Your task to perform on an android device: Open Google Maps and go to "Timeline" Image 0: 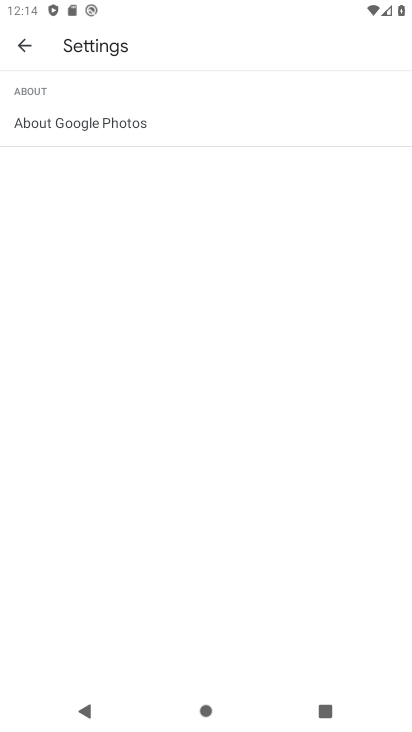
Step 0: press home button
Your task to perform on an android device: Open Google Maps and go to "Timeline" Image 1: 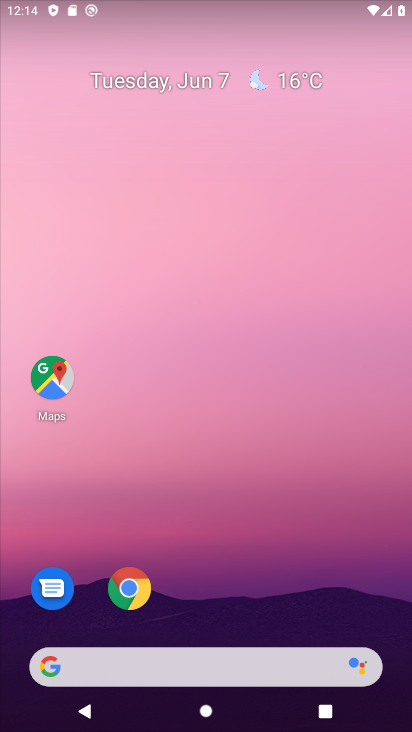
Step 1: click (28, 402)
Your task to perform on an android device: Open Google Maps and go to "Timeline" Image 2: 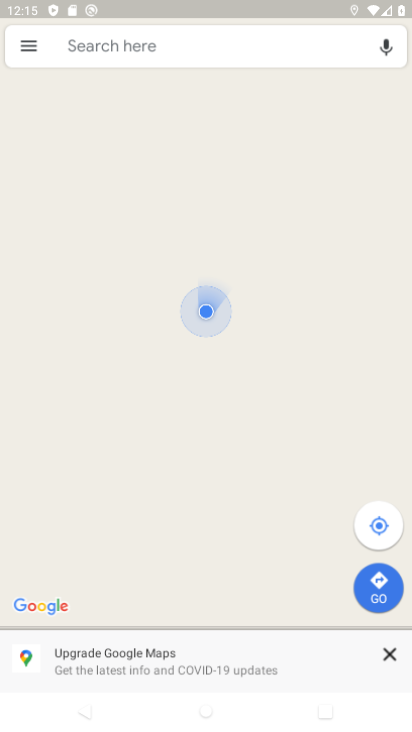
Step 2: click (27, 56)
Your task to perform on an android device: Open Google Maps and go to "Timeline" Image 3: 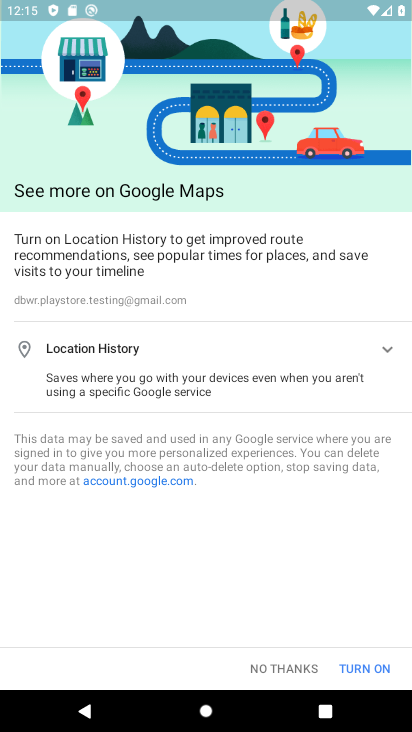
Step 3: click (305, 658)
Your task to perform on an android device: Open Google Maps and go to "Timeline" Image 4: 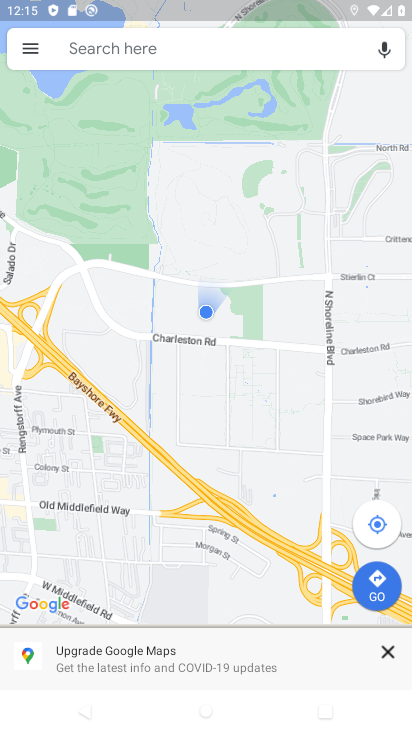
Step 4: click (42, 49)
Your task to perform on an android device: Open Google Maps and go to "Timeline" Image 5: 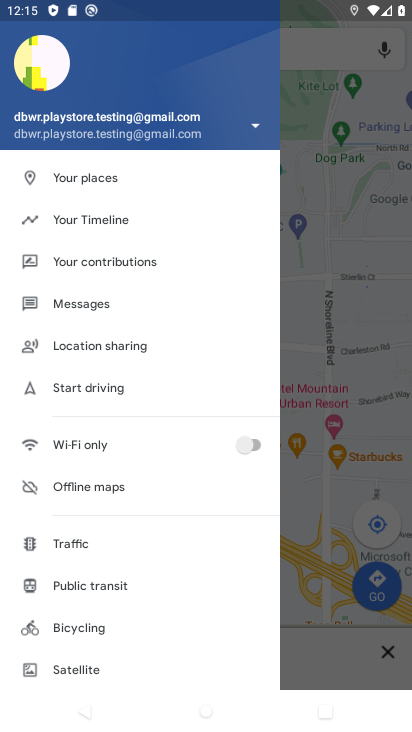
Step 5: click (76, 207)
Your task to perform on an android device: Open Google Maps and go to "Timeline" Image 6: 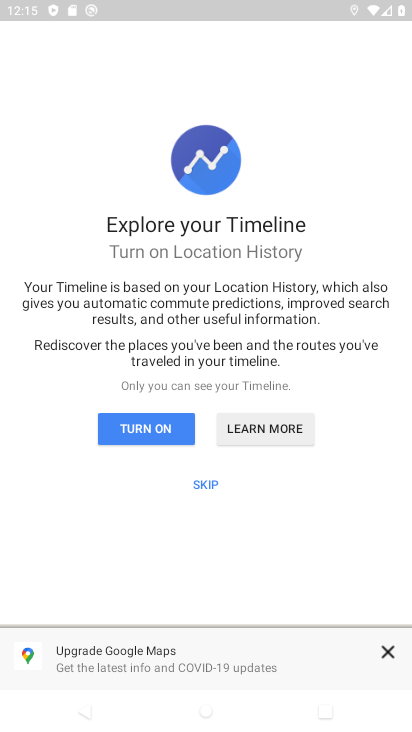
Step 6: task complete